Your task to perform on an android device: choose inbox layout in the gmail app Image 0: 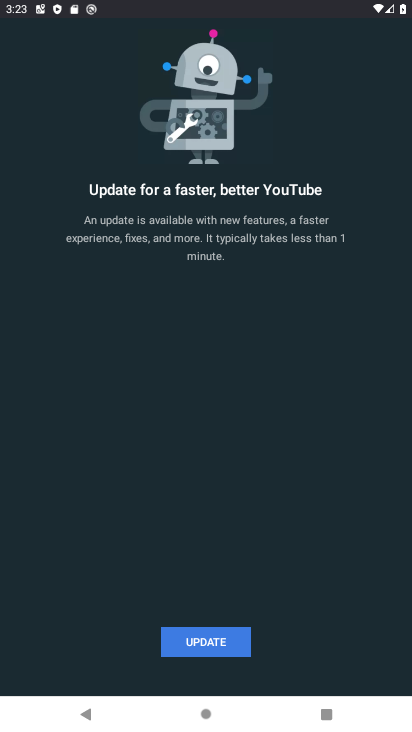
Step 0: press home button
Your task to perform on an android device: choose inbox layout in the gmail app Image 1: 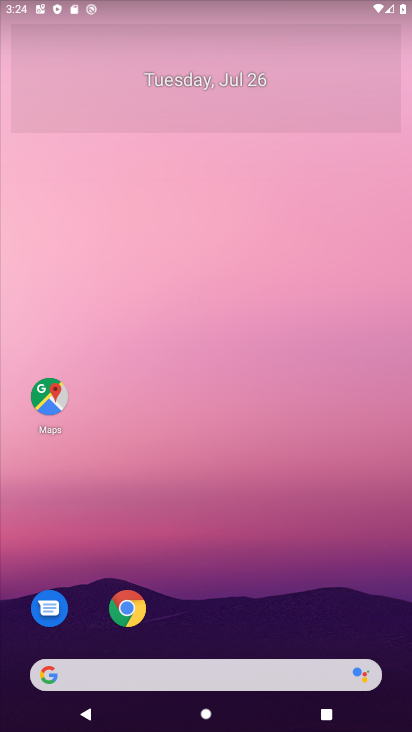
Step 1: drag from (276, 431) to (190, 76)
Your task to perform on an android device: choose inbox layout in the gmail app Image 2: 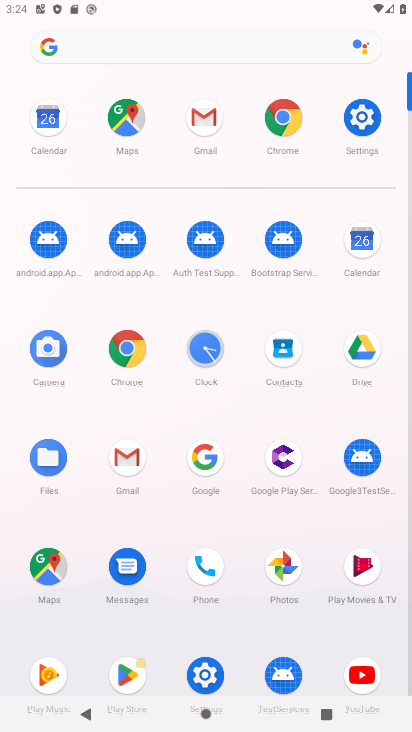
Step 2: click (121, 462)
Your task to perform on an android device: choose inbox layout in the gmail app Image 3: 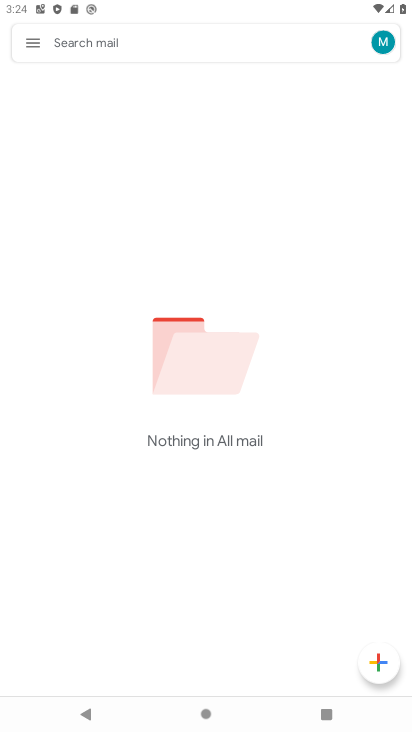
Step 3: task complete